Your task to perform on an android device: turn on the 24-hour format for clock Image 0: 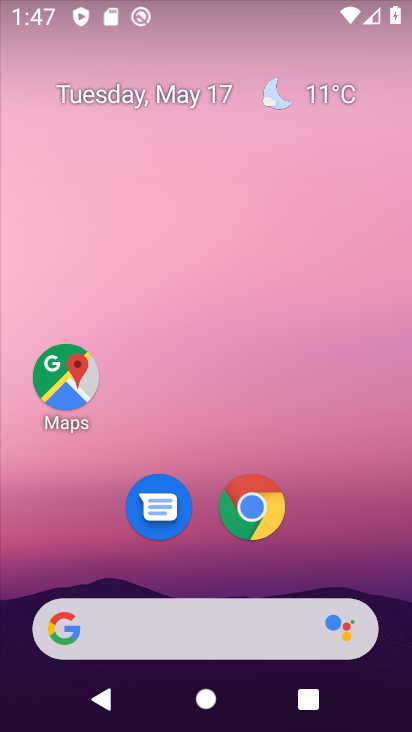
Step 0: drag from (203, 584) to (216, 105)
Your task to perform on an android device: turn on the 24-hour format for clock Image 1: 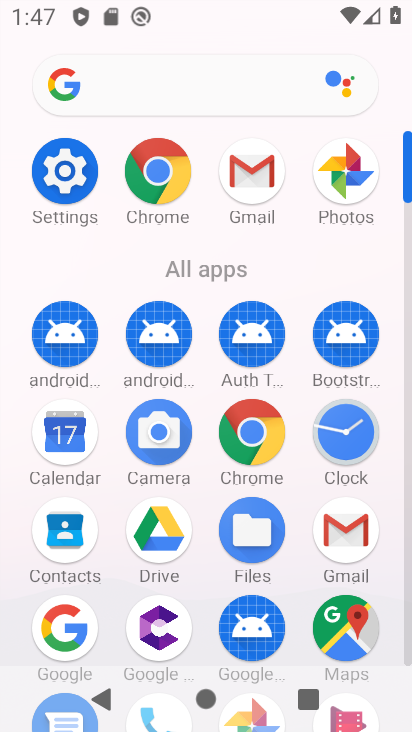
Step 1: click (344, 437)
Your task to perform on an android device: turn on the 24-hour format for clock Image 2: 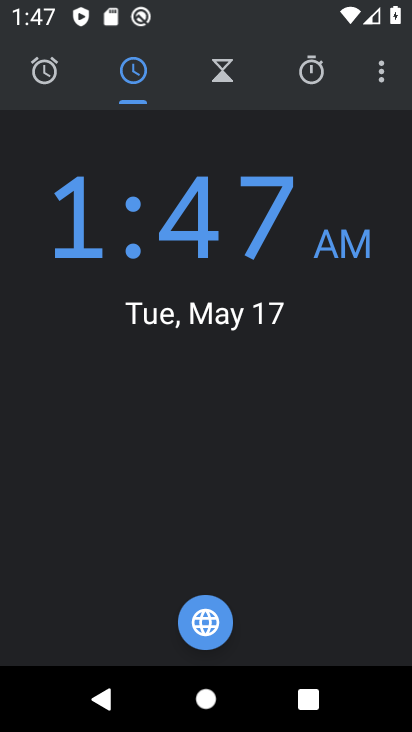
Step 2: click (387, 81)
Your task to perform on an android device: turn on the 24-hour format for clock Image 3: 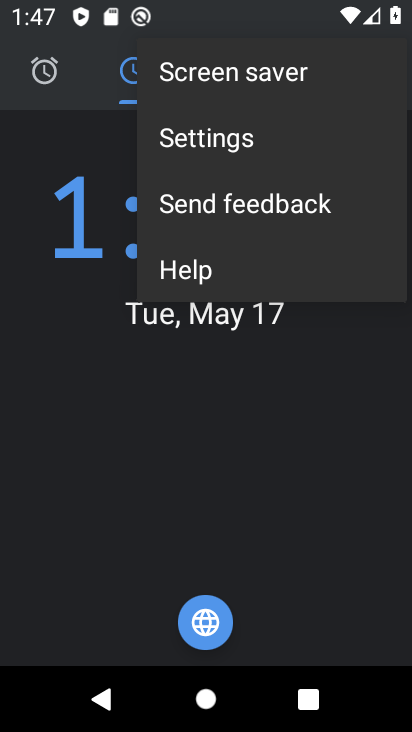
Step 3: click (253, 159)
Your task to perform on an android device: turn on the 24-hour format for clock Image 4: 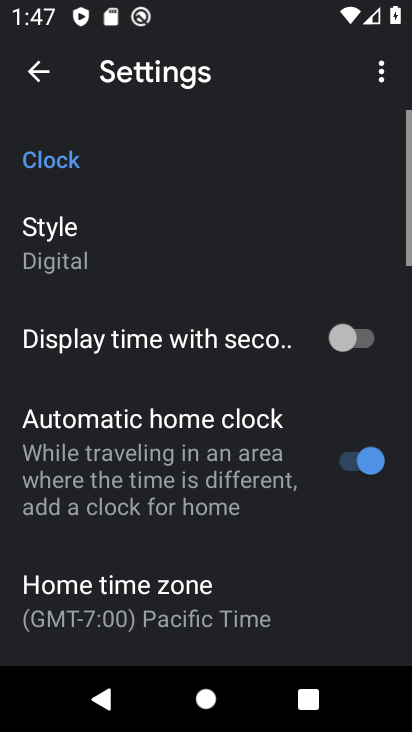
Step 4: drag from (189, 622) to (216, 134)
Your task to perform on an android device: turn on the 24-hour format for clock Image 5: 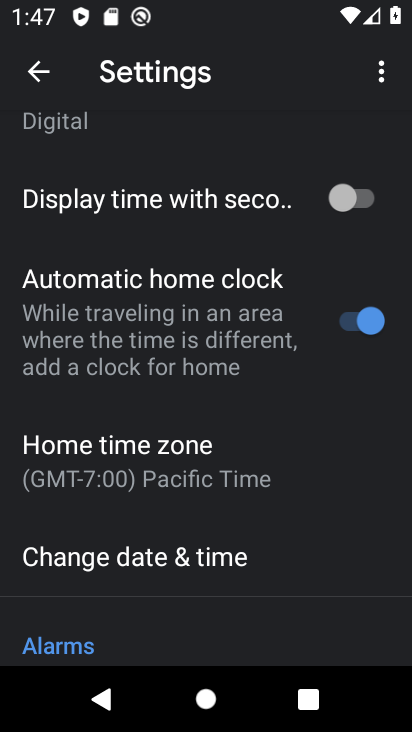
Step 5: drag from (164, 581) to (208, 209)
Your task to perform on an android device: turn on the 24-hour format for clock Image 6: 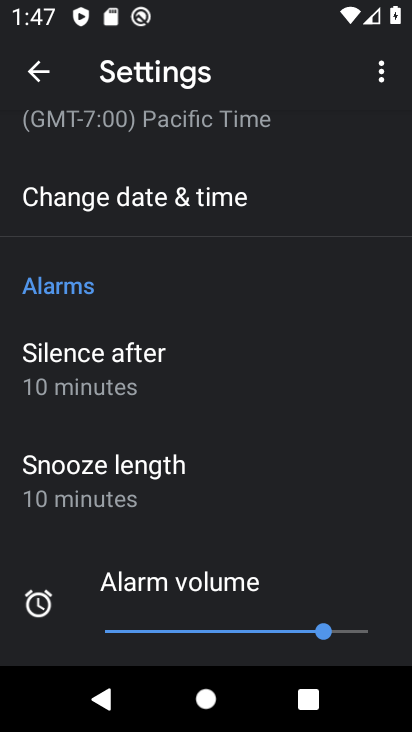
Step 6: click (199, 204)
Your task to perform on an android device: turn on the 24-hour format for clock Image 7: 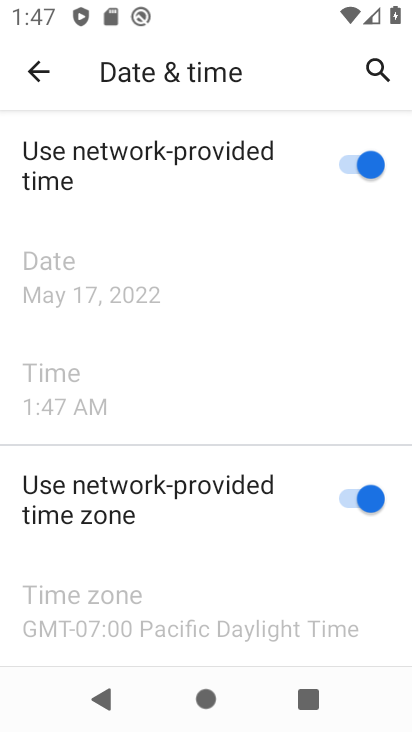
Step 7: drag from (120, 524) to (156, 145)
Your task to perform on an android device: turn on the 24-hour format for clock Image 8: 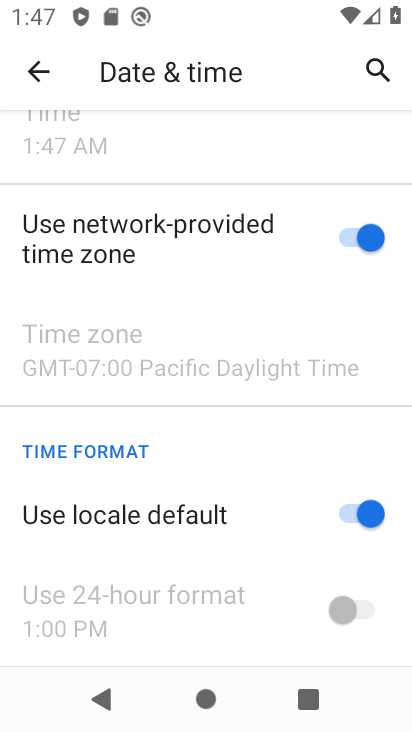
Step 8: drag from (170, 191) to (163, 635)
Your task to perform on an android device: turn on the 24-hour format for clock Image 9: 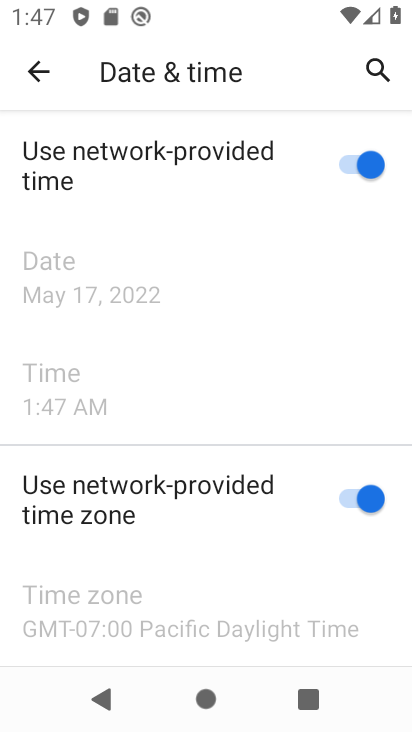
Step 9: drag from (138, 561) to (150, 204)
Your task to perform on an android device: turn on the 24-hour format for clock Image 10: 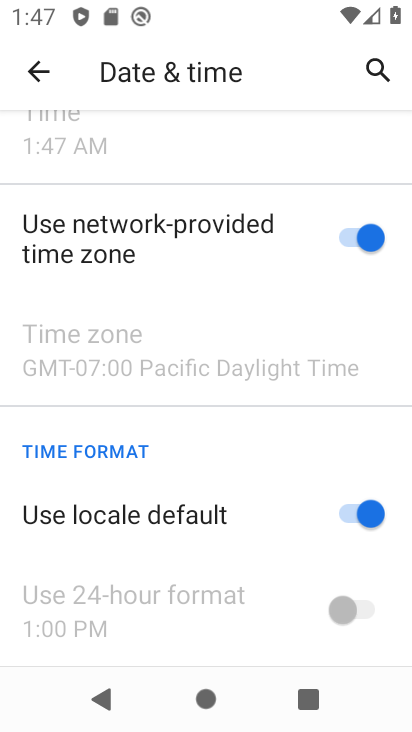
Step 10: click (335, 518)
Your task to perform on an android device: turn on the 24-hour format for clock Image 11: 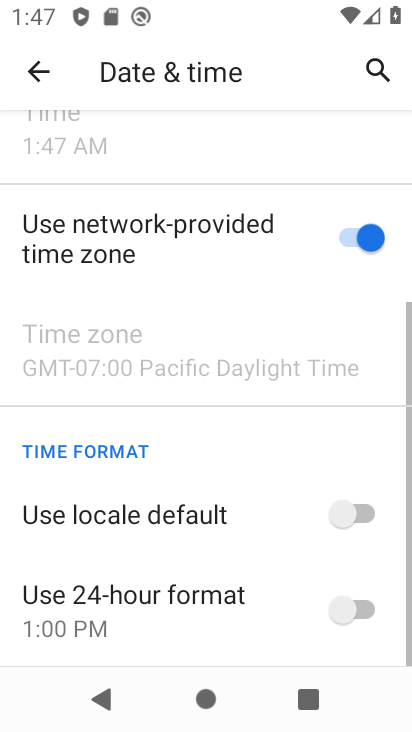
Step 11: click (373, 616)
Your task to perform on an android device: turn on the 24-hour format for clock Image 12: 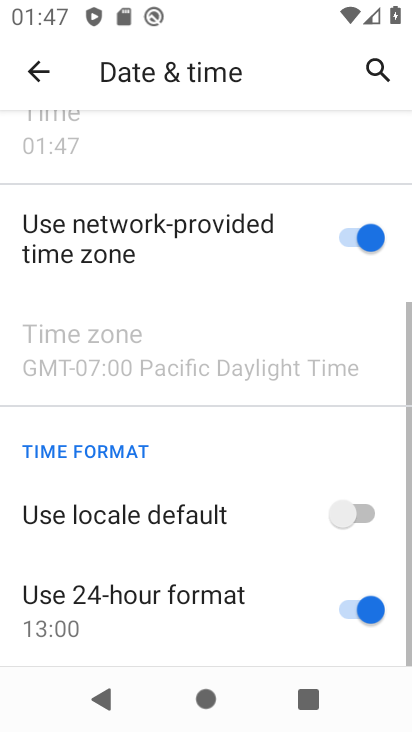
Step 12: task complete